Your task to perform on an android device: Search for seafood restaurants on Google Maps Image 0: 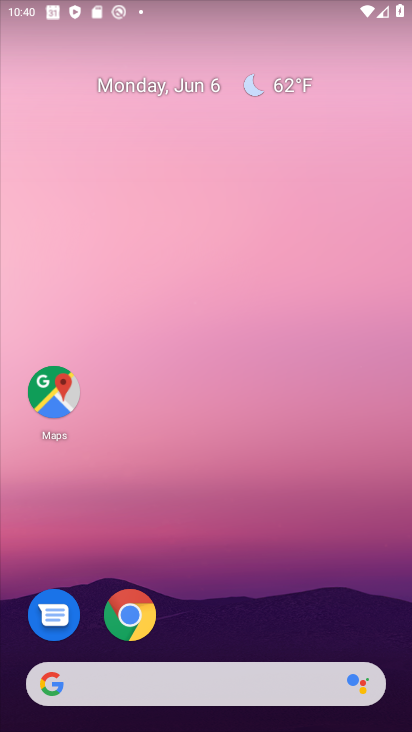
Step 0: drag from (257, 698) to (182, 132)
Your task to perform on an android device: Search for seafood restaurants on Google Maps Image 1: 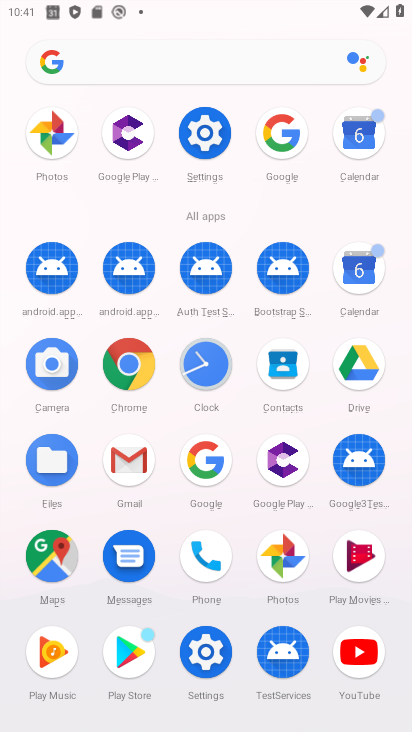
Step 1: click (54, 550)
Your task to perform on an android device: Search for seafood restaurants on Google Maps Image 2: 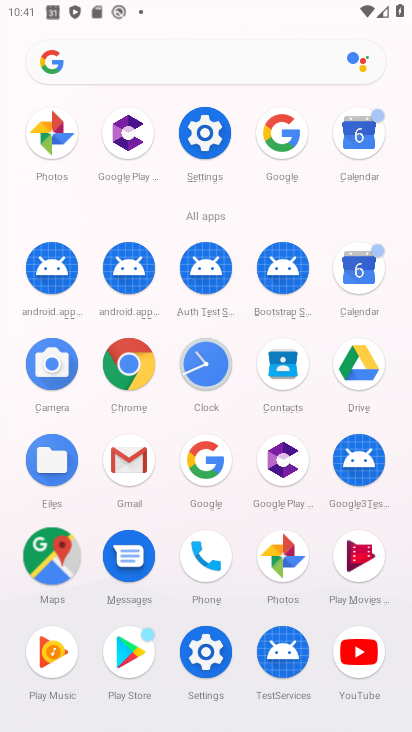
Step 2: click (54, 550)
Your task to perform on an android device: Search for seafood restaurants on Google Maps Image 3: 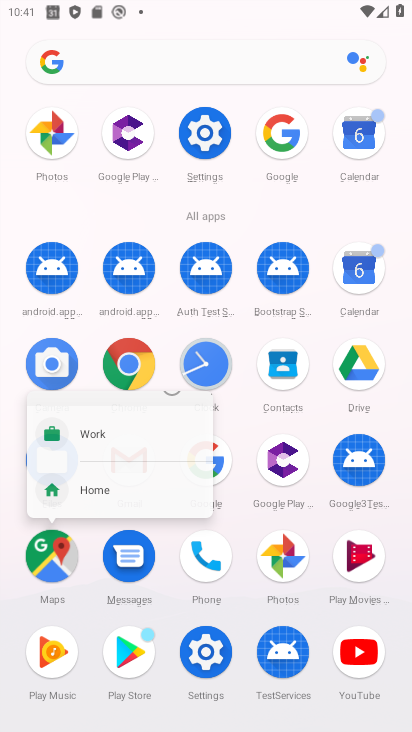
Step 3: click (53, 549)
Your task to perform on an android device: Search for seafood restaurants on Google Maps Image 4: 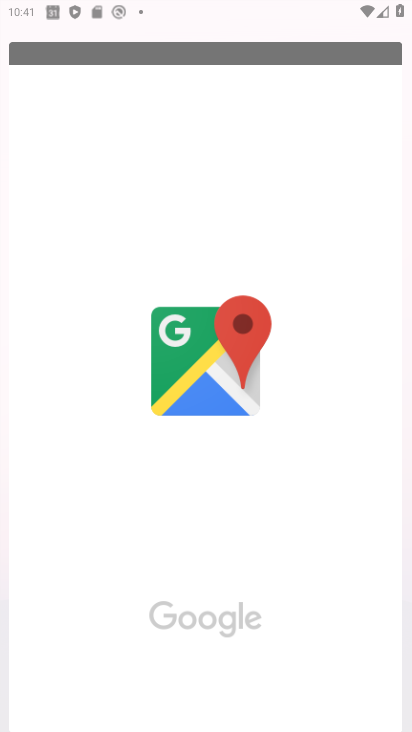
Step 4: click (51, 549)
Your task to perform on an android device: Search for seafood restaurants on Google Maps Image 5: 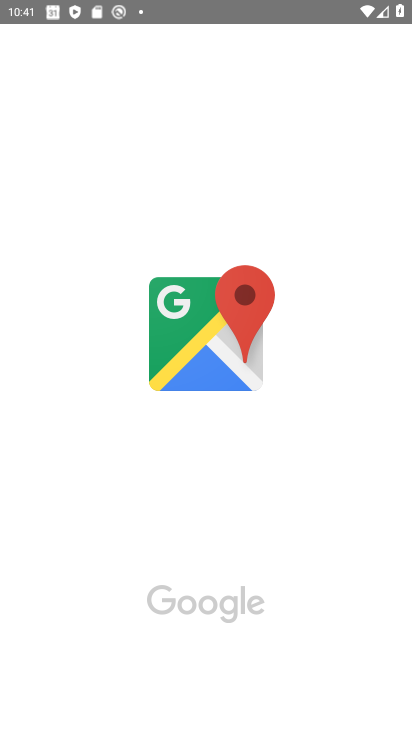
Step 5: click (51, 549)
Your task to perform on an android device: Search for seafood restaurants on Google Maps Image 6: 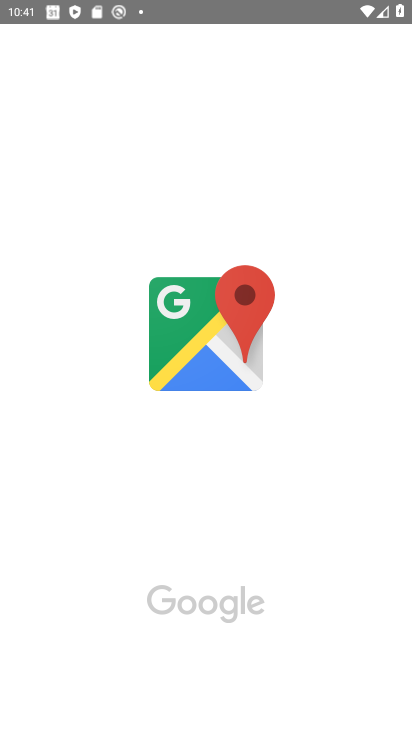
Step 6: click (50, 549)
Your task to perform on an android device: Search for seafood restaurants on Google Maps Image 7: 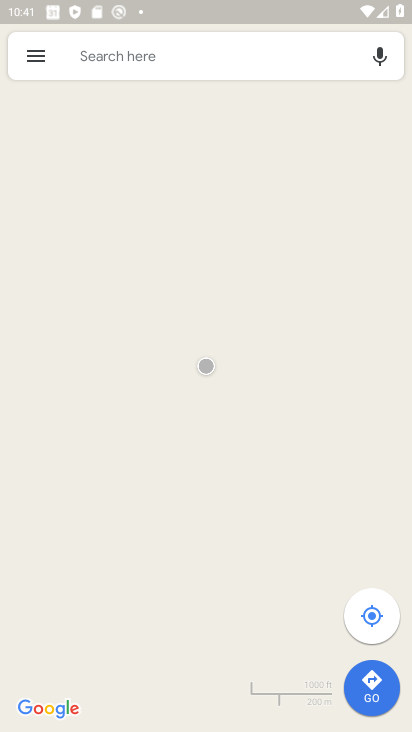
Step 7: click (97, 64)
Your task to perform on an android device: Search for seafood restaurants on Google Maps Image 8: 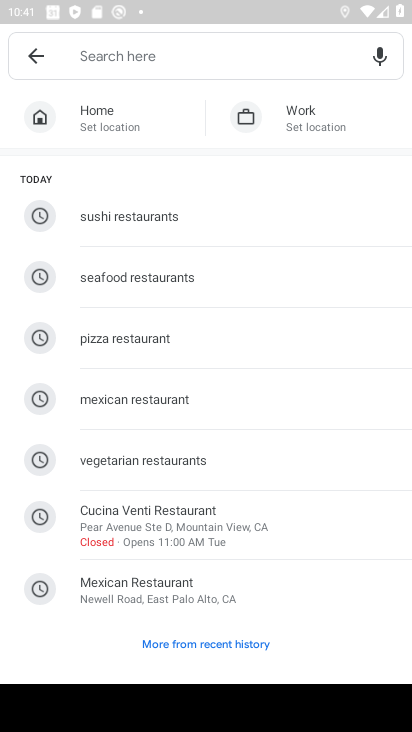
Step 8: click (132, 280)
Your task to perform on an android device: Search for seafood restaurants on Google Maps Image 9: 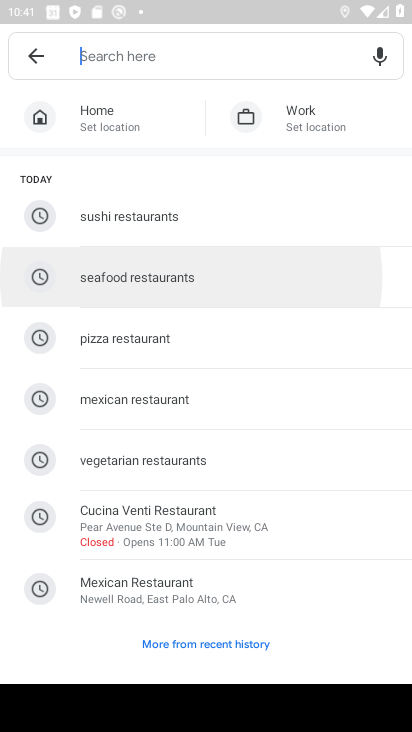
Step 9: click (131, 277)
Your task to perform on an android device: Search for seafood restaurants on Google Maps Image 10: 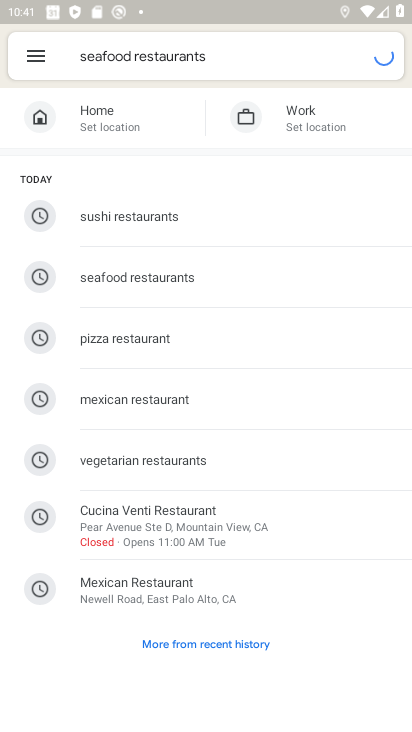
Step 10: click (131, 276)
Your task to perform on an android device: Search for seafood restaurants on Google Maps Image 11: 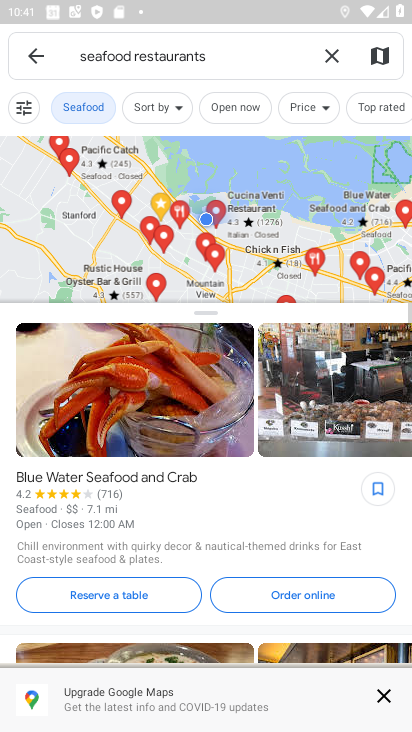
Step 11: task complete